Your task to perform on an android device: Go to internet settings Image 0: 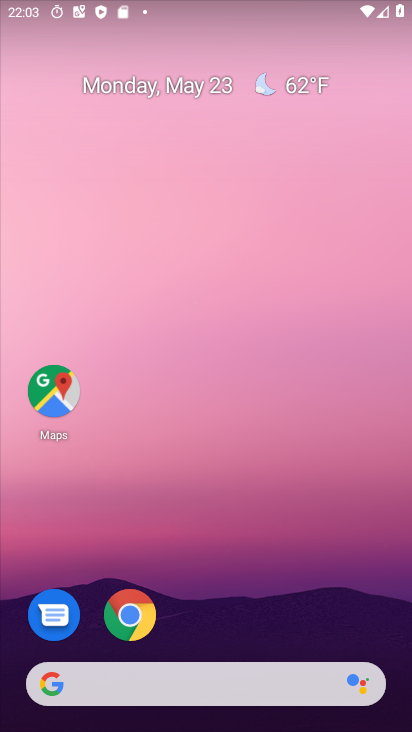
Step 0: drag from (210, 588) to (224, 99)
Your task to perform on an android device: Go to internet settings Image 1: 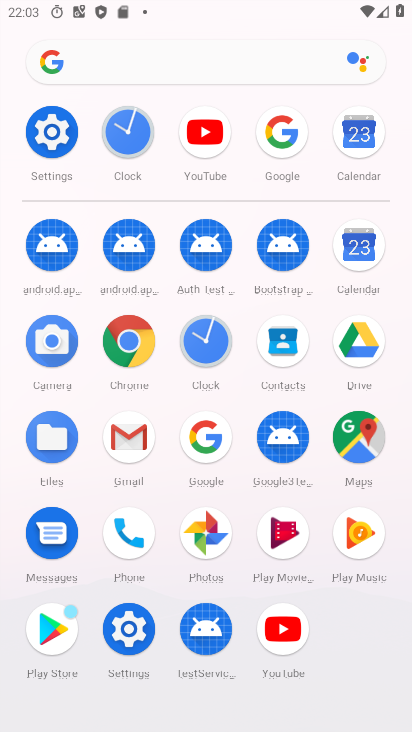
Step 1: click (54, 131)
Your task to perform on an android device: Go to internet settings Image 2: 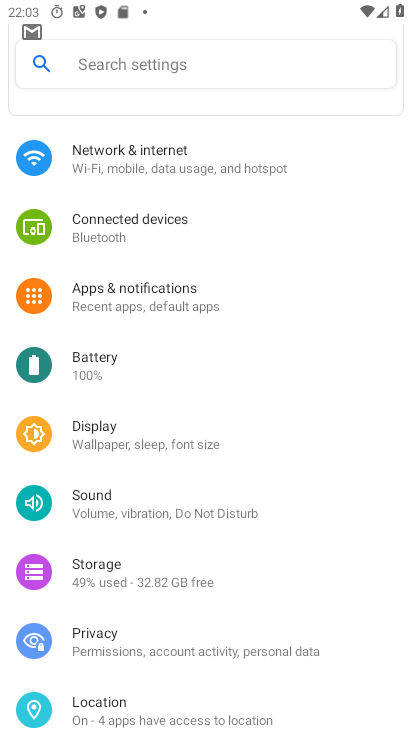
Step 2: click (142, 175)
Your task to perform on an android device: Go to internet settings Image 3: 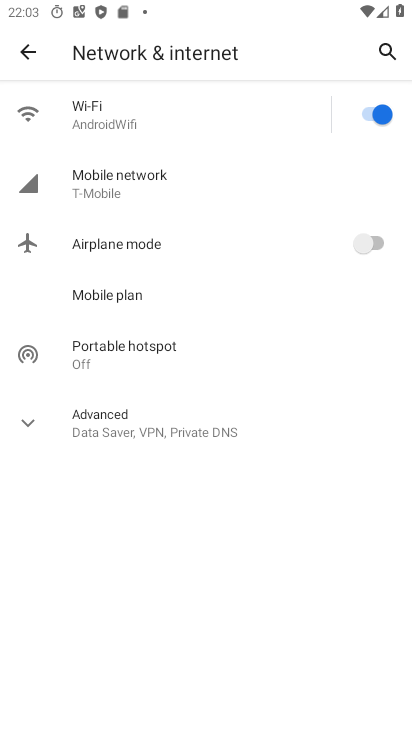
Step 3: click (151, 110)
Your task to perform on an android device: Go to internet settings Image 4: 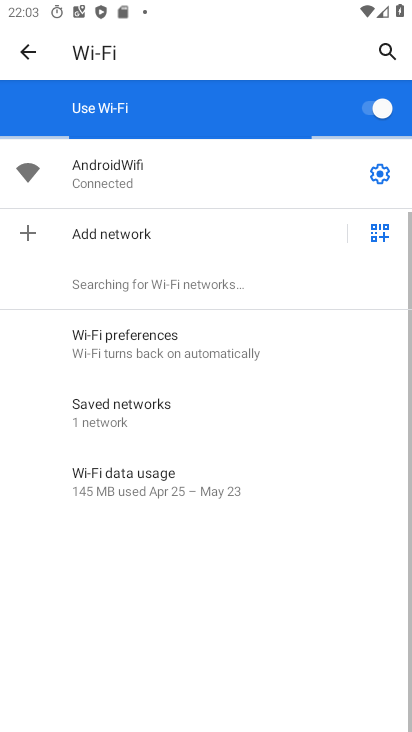
Step 4: click (183, 178)
Your task to perform on an android device: Go to internet settings Image 5: 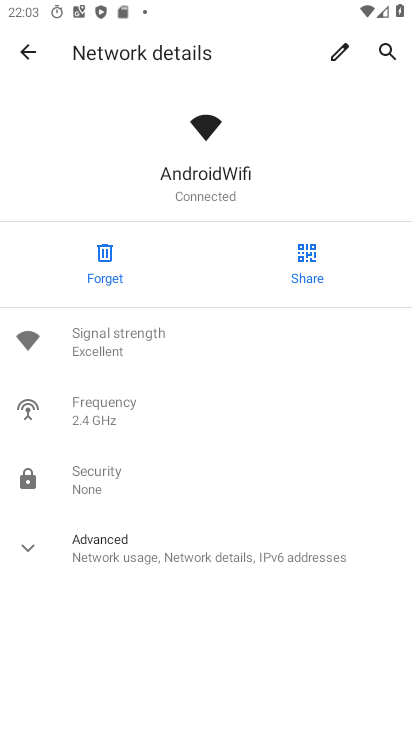
Step 5: task complete